Your task to perform on an android device: open chrome privacy settings Image 0: 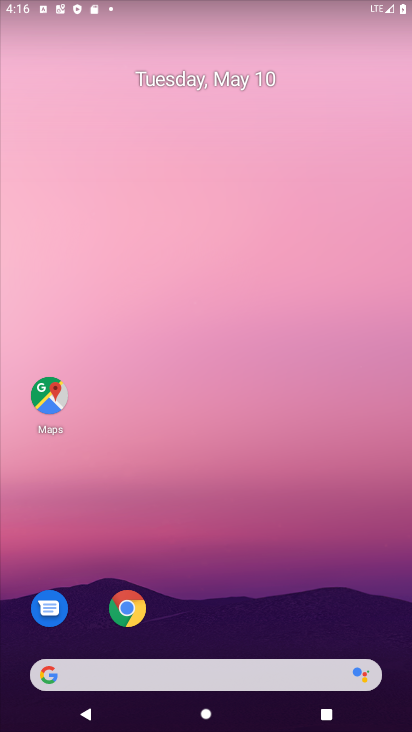
Step 0: click (130, 610)
Your task to perform on an android device: open chrome privacy settings Image 1: 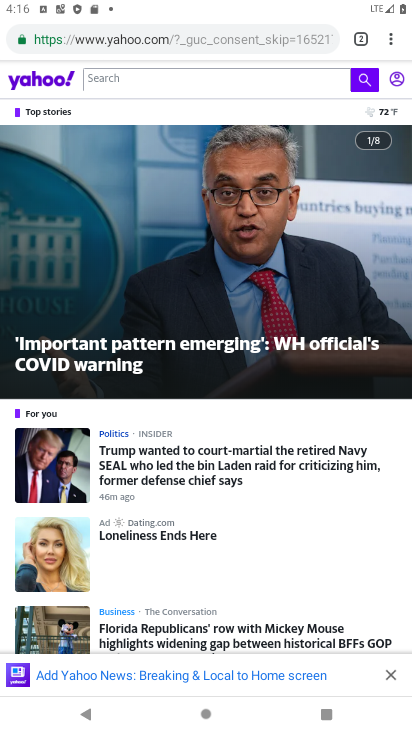
Step 1: click (389, 41)
Your task to perform on an android device: open chrome privacy settings Image 2: 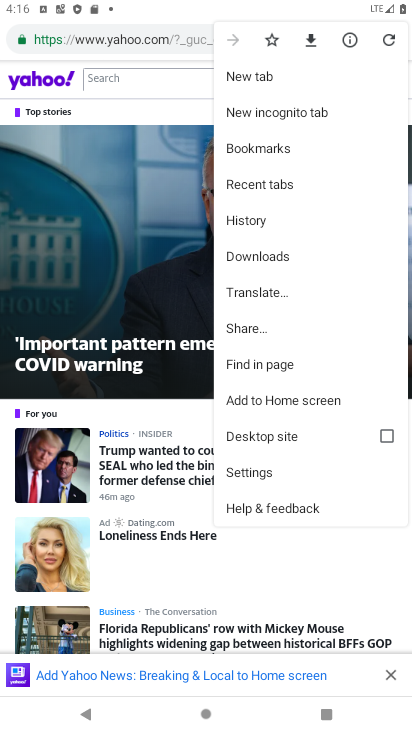
Step 2: click (256, 468)
Your task to perform on an android device: open chrome privacy settings Image 3: 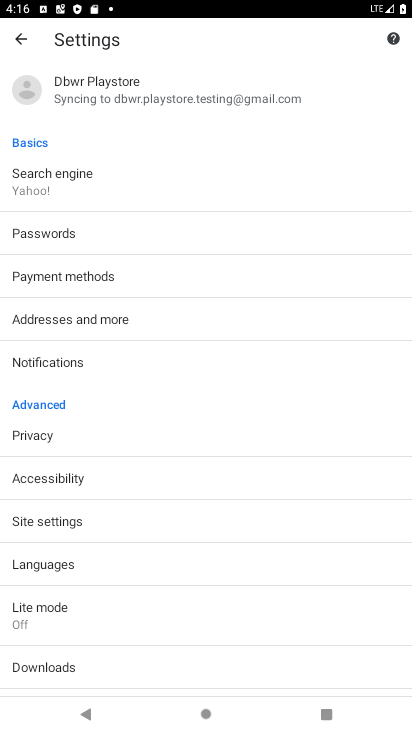
Step 3: click (36, 441)
Your task to perform on an android device: open chrome privacy settings Image 4: 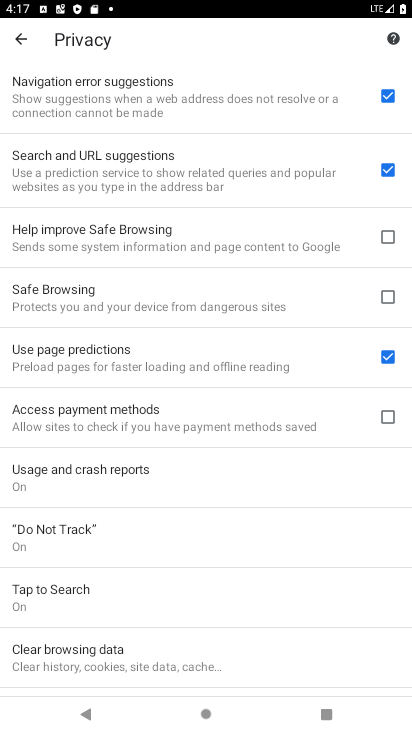
Step 4: task complete